Your task to perform on an android device: Search for the best selling book on Amazon. Image 0: 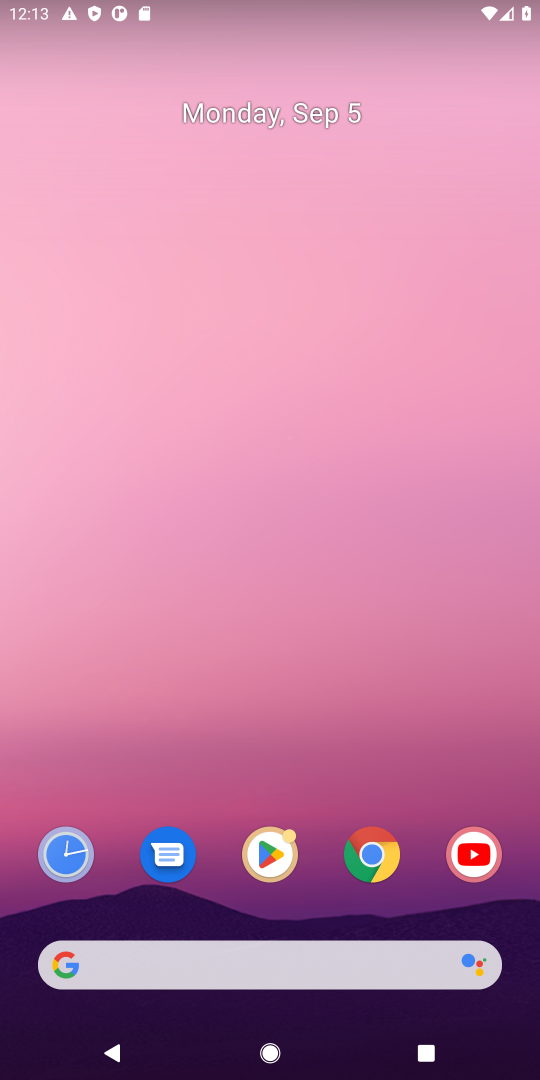
Step 0: press home button
Your task to perform on an android device: Search for the best selling book on Amazon. Image 1: 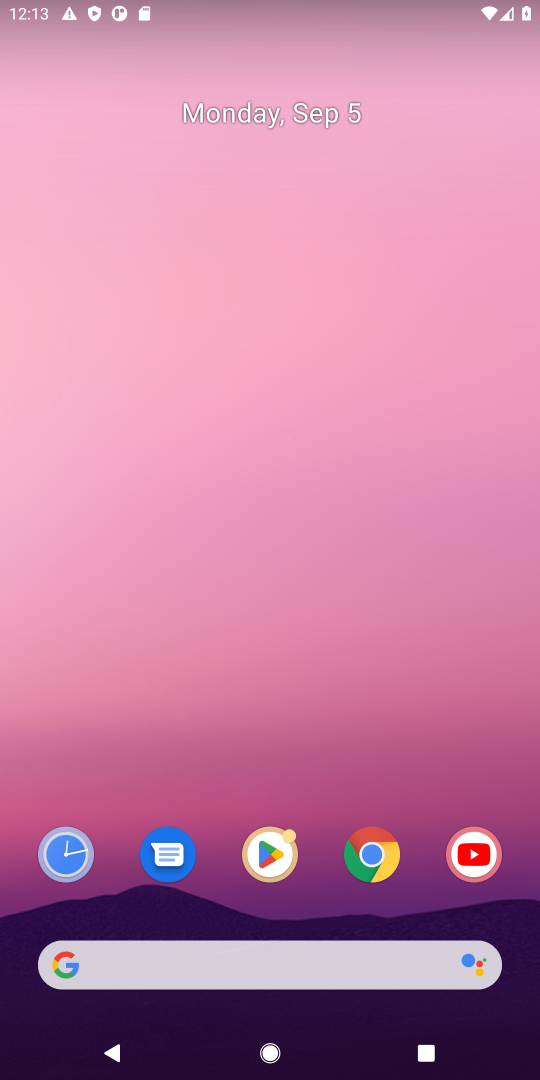
Step 1: click (307, 964)
Your task to perform on an android device: Search for the best selling book on Amazon. Image 2: 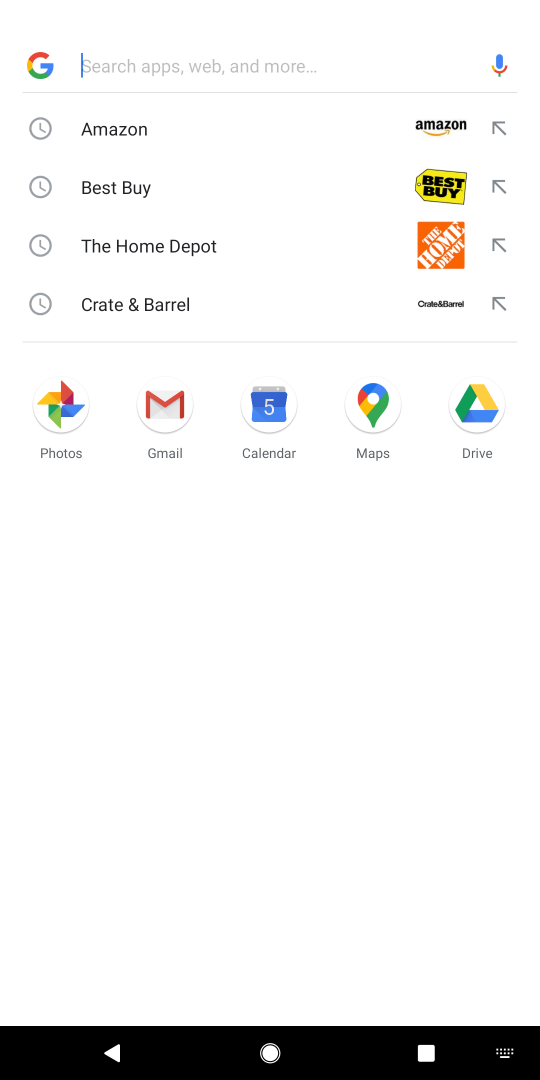
Step 2: type "amazon"
Your task to perform on an android device: Search for the best selling book on Amazon. Image 3: 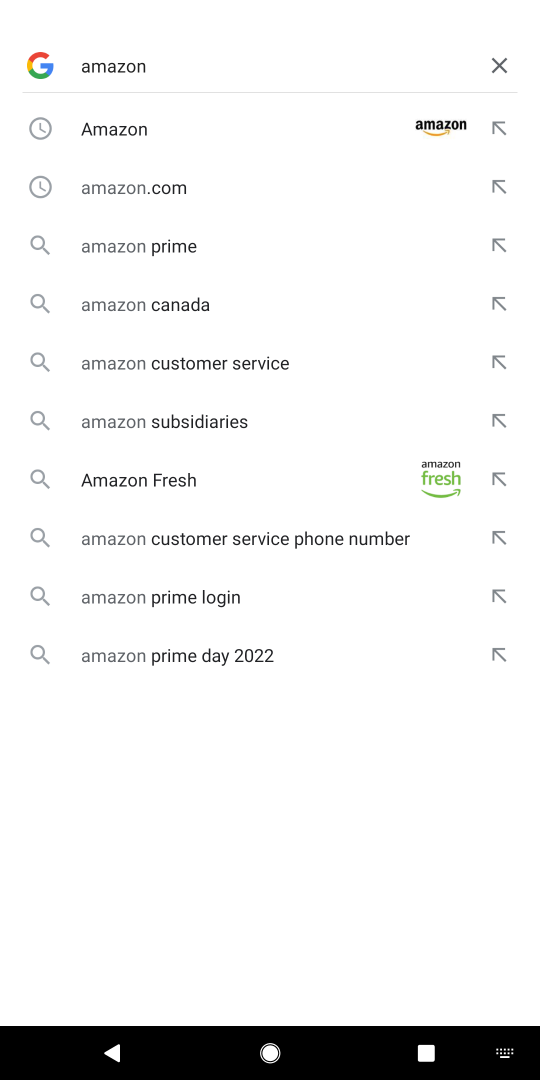
Step 3: press enter
Your task to perform on an android device: Search for the best selling book on Amazon. Image 4: 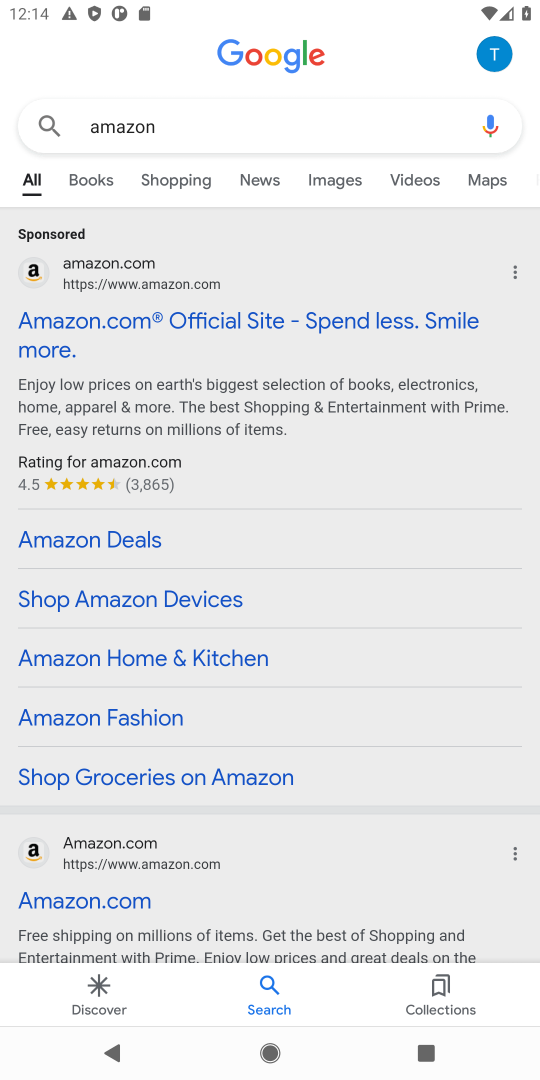
Step 4: click (110, 323)
Your task to perform on an android device: Search for the best selling book on Amazon. Image 5: 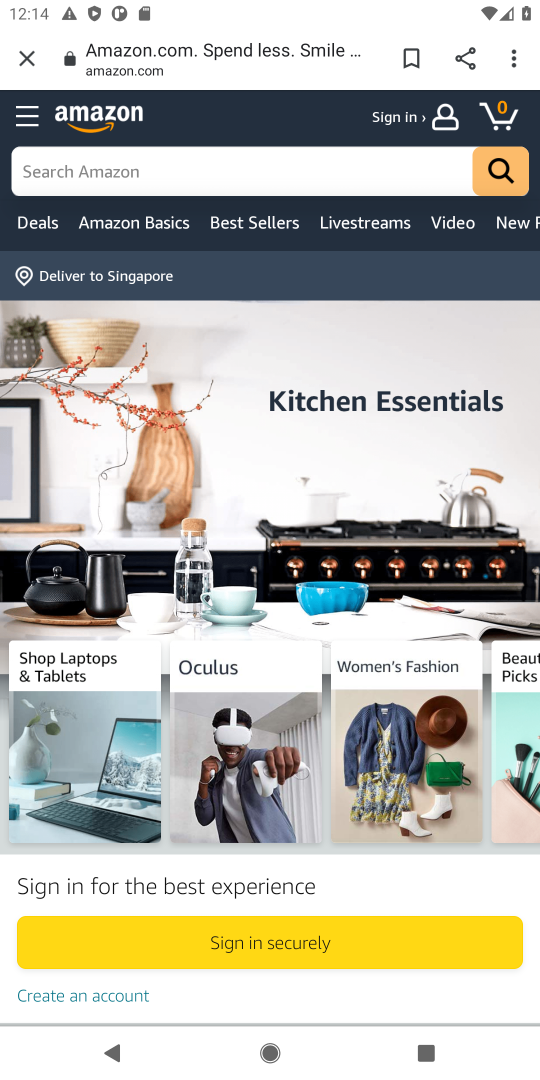
Step 5: click (109, 167)
Your task to perform on an android device: Search for the best selling book on Amazon. Image 6: 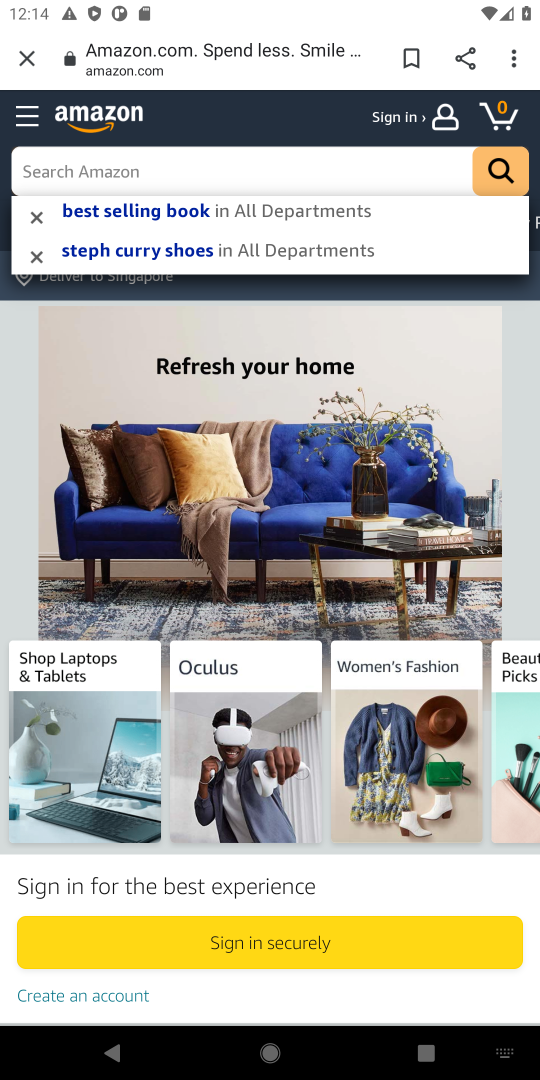
Step 6: click (209, 206)
Your task to perform on an android device: Search for the best selling book on Amazon. Image 7: 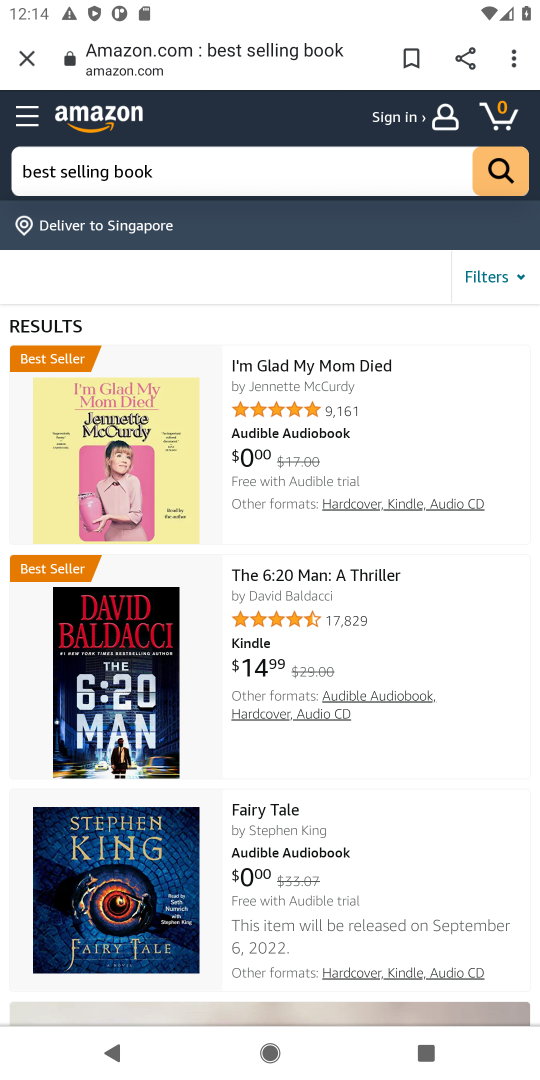
Step 7: task complete